Your task to perform on an android device: Open Google Maps and go to "Timeline" Image 0: 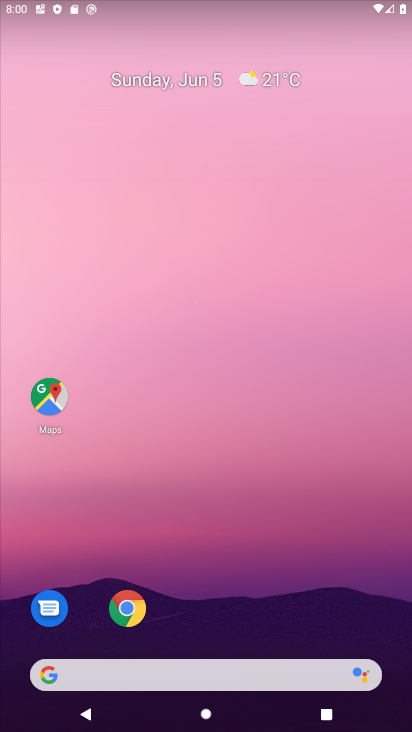
Step 0: drag from (355, 545) to (330, 209)
Your task to perform on an android device: Open Google Maps and go to "Timeline" Image 1: 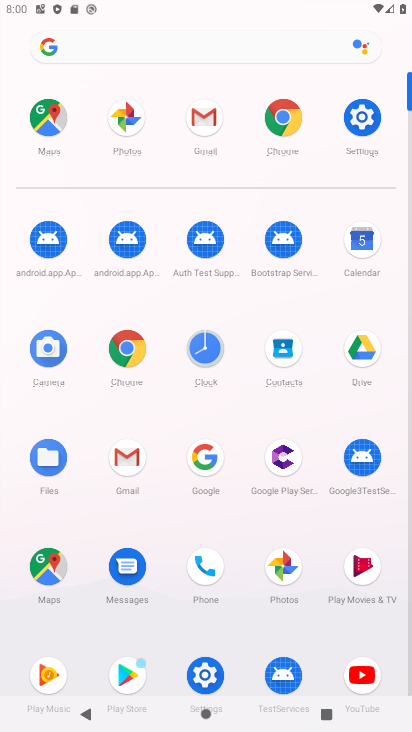
Step 1: click (46, 571)
Your task to perform on an android device: Open Google Maps and go to "Timeline" Image 2: 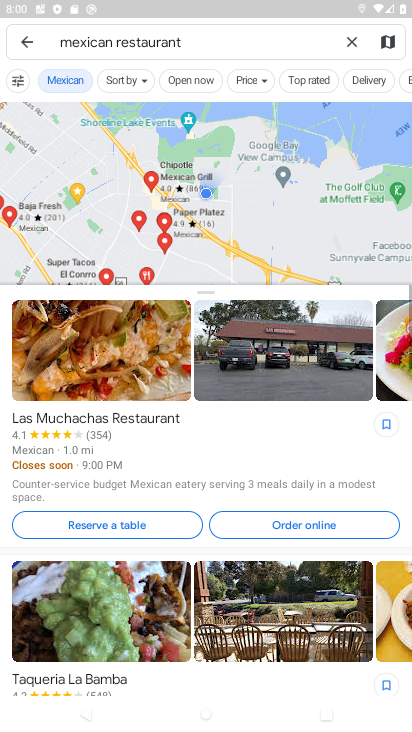
Step 2: click (15, 41)
Your task to perform on an android device: Open Google Maps and go to "Timeline" Image 3: 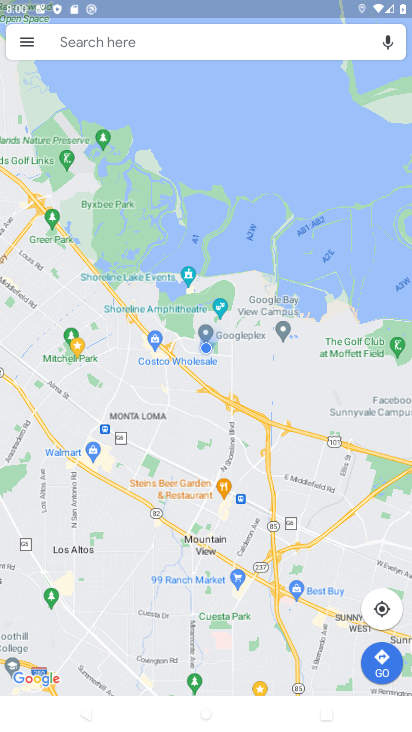
Step 3: click (14, 42)
Your task to perform on an android device: Open Google Maps and go to "Timeline" Image 4: 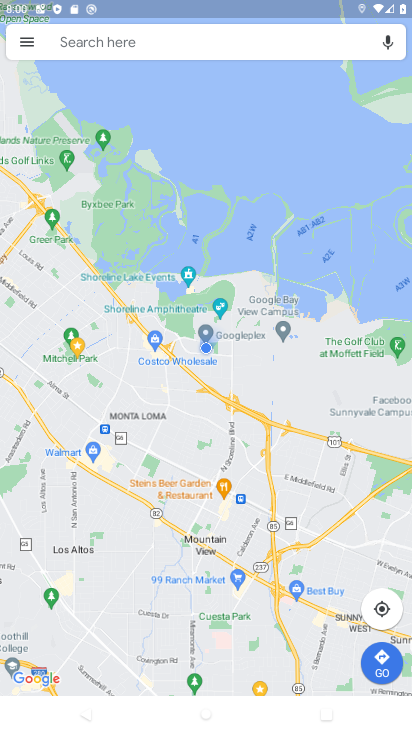
Step 4: click (34, 36)
Your task to perform on an android device: Open Google Maps and go to "Timeline" Image 5: 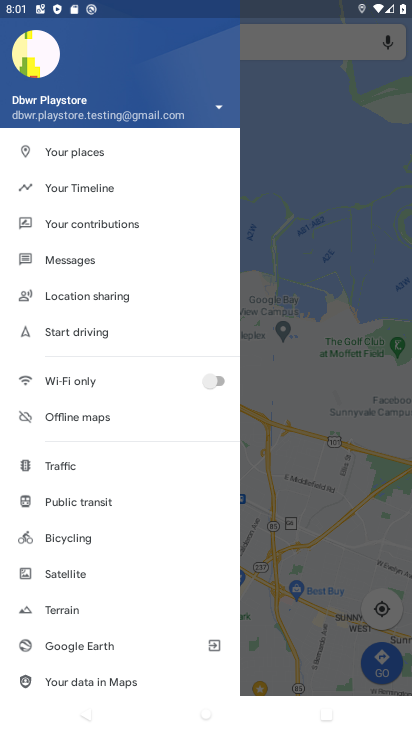
Step 5: click (49, 184)
Your task to perform on an android device: Open Google Maps and go to "Timeline" Image 6: 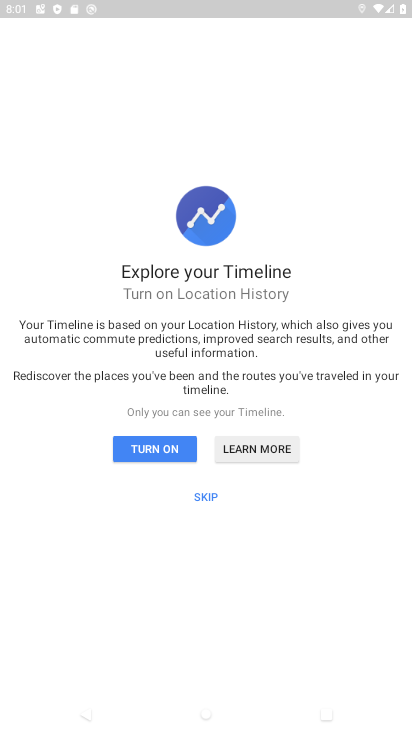
Step 6: click (204, 493)
Your task to perform on an android device: Open Google Maps and go to "Timeline" Image 7: 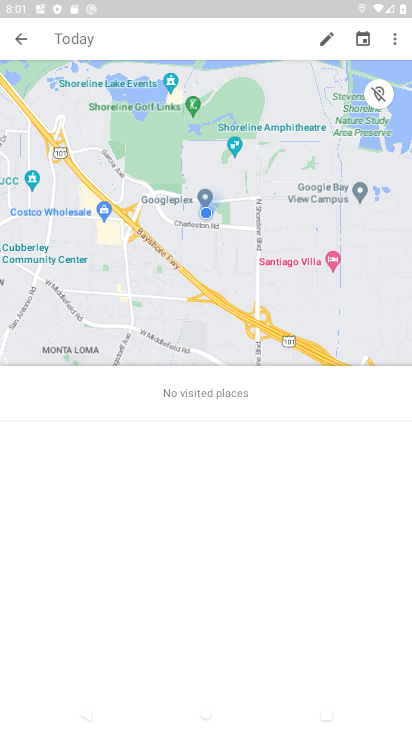
Step 7: task complete